Your task to perform on an android device: Open Youtube and go to the subscriptions tab Image 0: 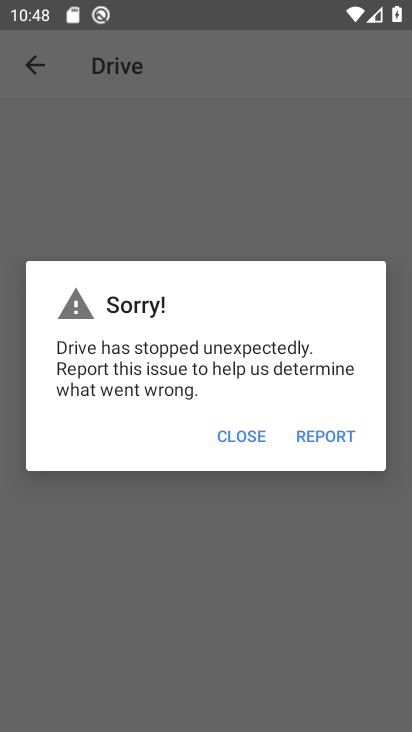
Step 0: press home button
Your task to perform on an android device: Open Youtube and go to the subscriptions tab Image 1: 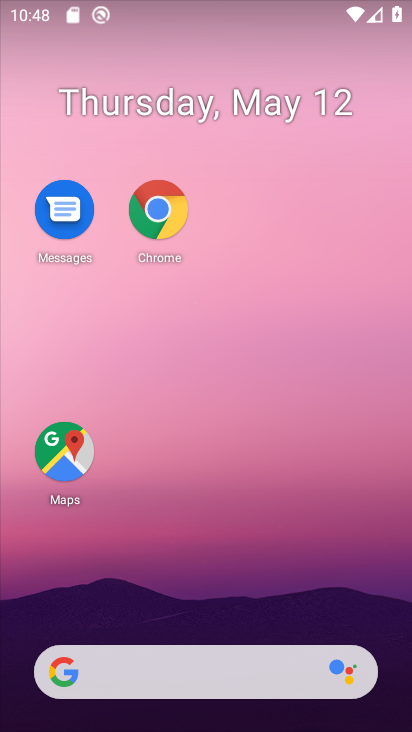
Step 1: drag from (239, 603) to (77, 17)
Your task to perform on an android device: Open Youtube and go to the subscriptions tab Image 2: 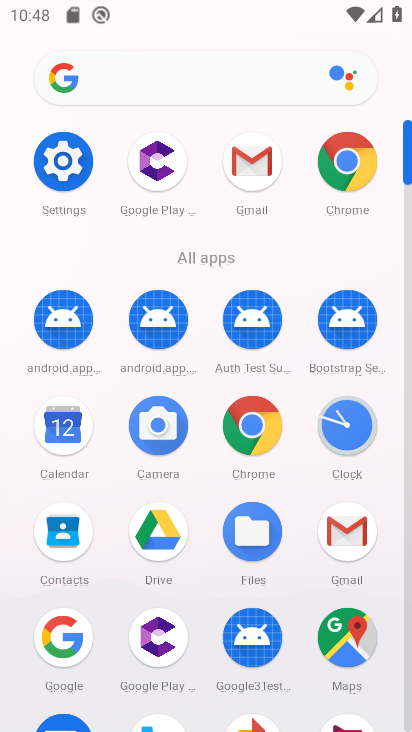
Step 2: drag from (185, 611) to (133, 187)
Your task to perform on an android device: Open Youtube and go to the subscriptions tab Image 3: 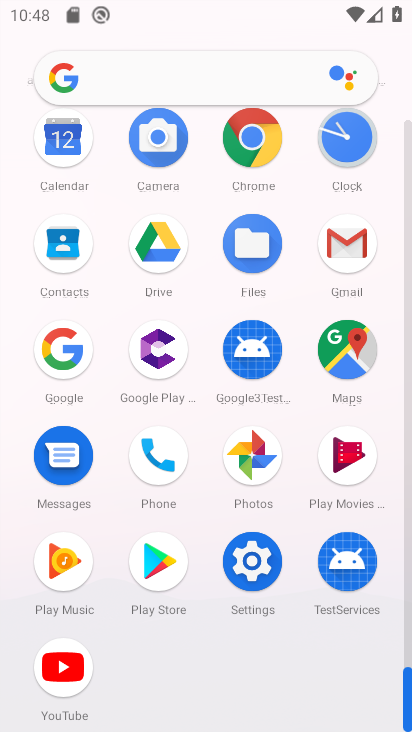
Step 3: click (76, 676)
Your task to perform on an android device: Open Youtube and go to the subscriptions tab Image 4: 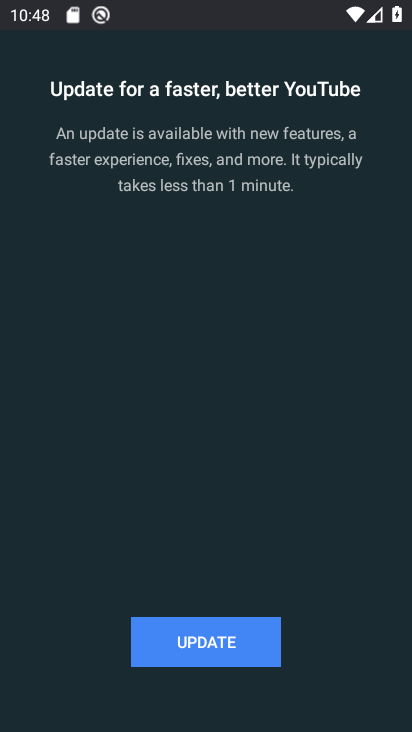
Step 4: click (187, 637)
Your task to perform on an android device: Open Youtube and go to the subscriptions tab Image 5: 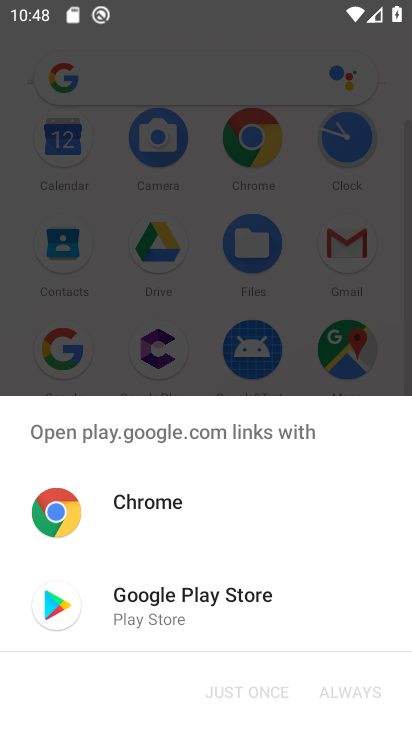
Step 5: click (249, 633)
Your task to perform on an android device: Open Youtube and go to the subscriptions tab Image 6: 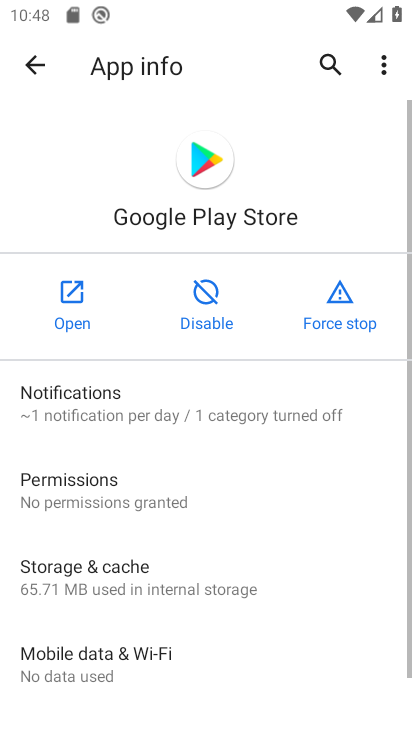
Step 6: click (195, 617)
Your task to perform on an android device: Open Youtube and go to the subscriptions tab Image 7: 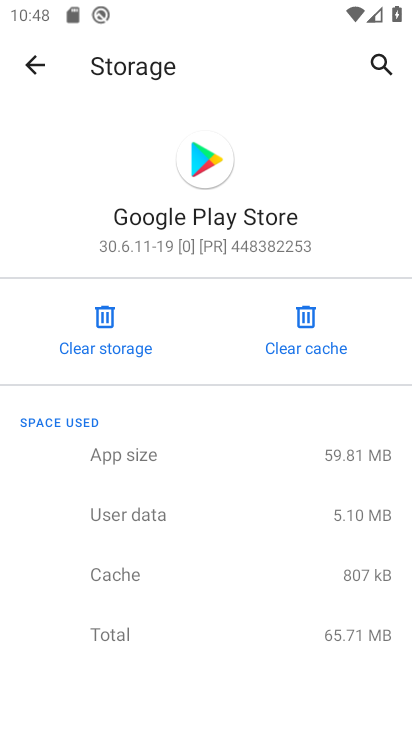
Step 7: click (41, 75)
Your task to perform on an android device: Open Youtube and go to the subscriptions tab Image 8: 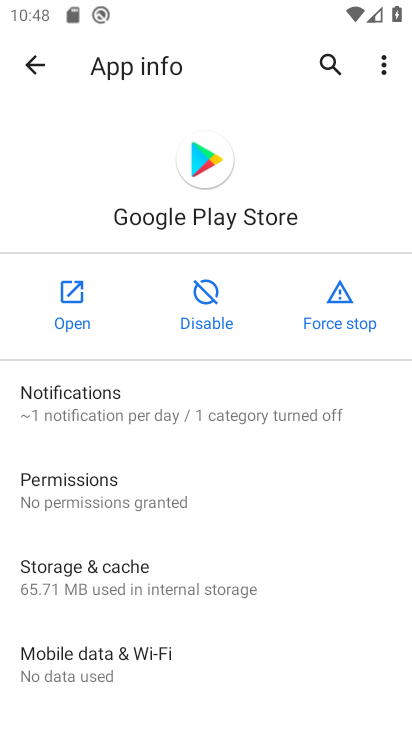
Step 8: click (35, 79)
Your task to perform on an android device: Open Youtube and go to the subscriptions tab Image 9: 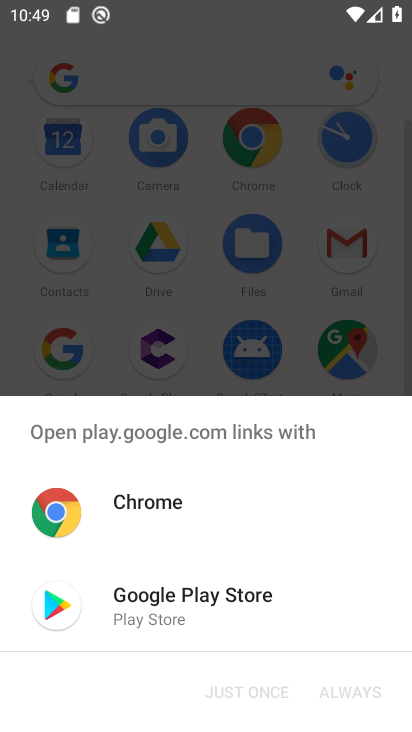
Step 9: click (181, 615)
Your task to perform on an android device: Open Youtube and go to the subscriptions tab Image 10: 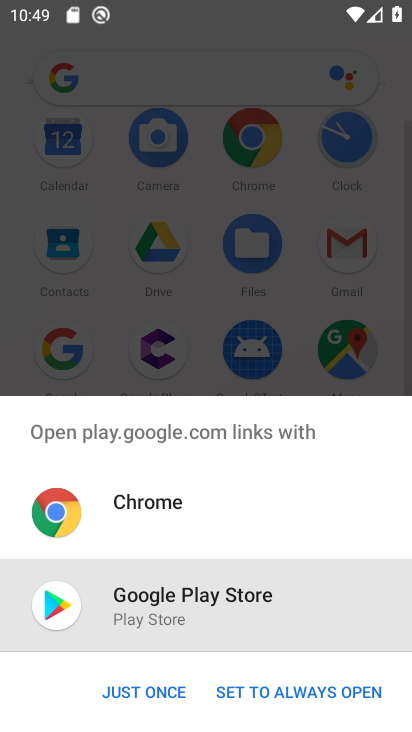
Step 10: click (259, 695)
Your task to perform on an android device: Open Youtube and go to the subscriptions tab Image 11: 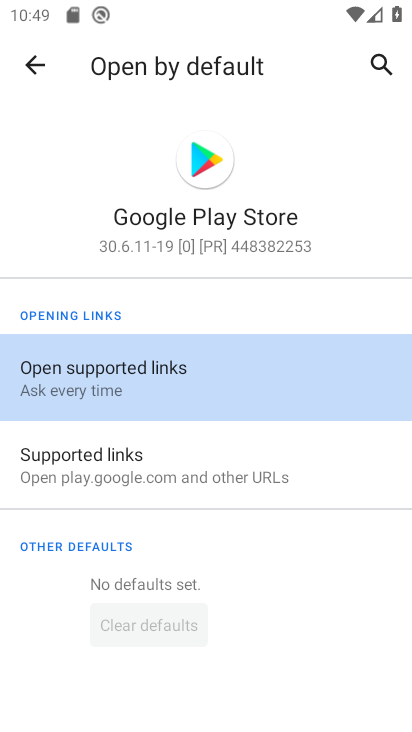
Step 11: click (85, 403)
Your task to perform on an android device: Open Youtube and go to the subscriptions tab Image 12: 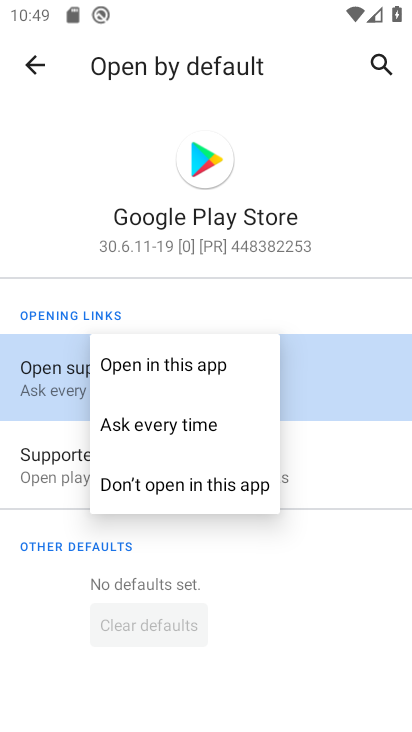
Step 12: click (154, 369)
Your task to perform on an android device: Open Youtube and go to the subscriptions tab Image 13: 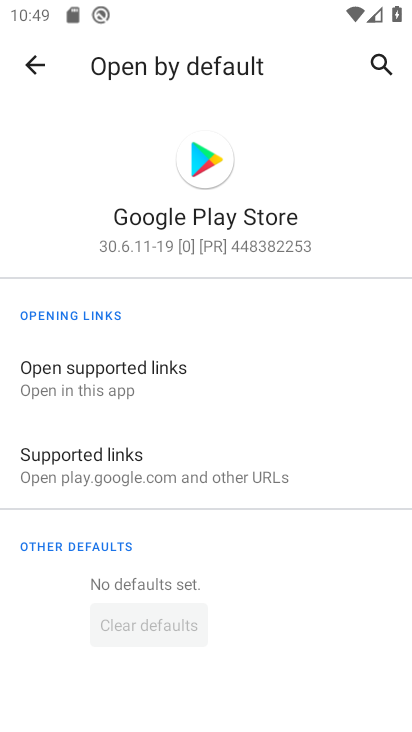
Step 13: click (32, 64)
Your task to perform on an android device: Open Youtube and go to the subscriptions tab Image 14: 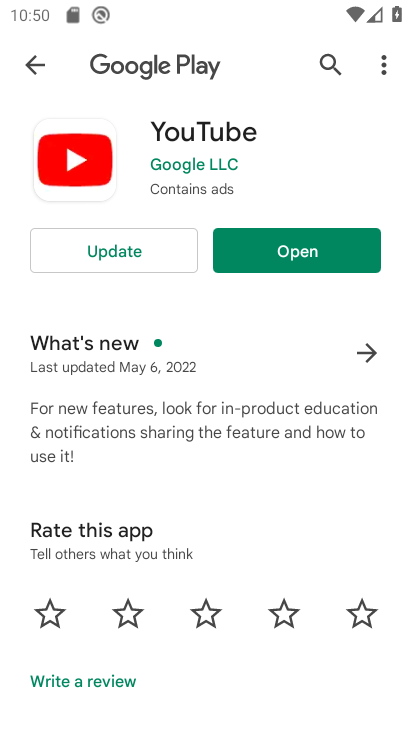
Step 14: click (121, 249)
Your task to perform on an android device: Open Youtube and go to the subscriptions tab Image 15: 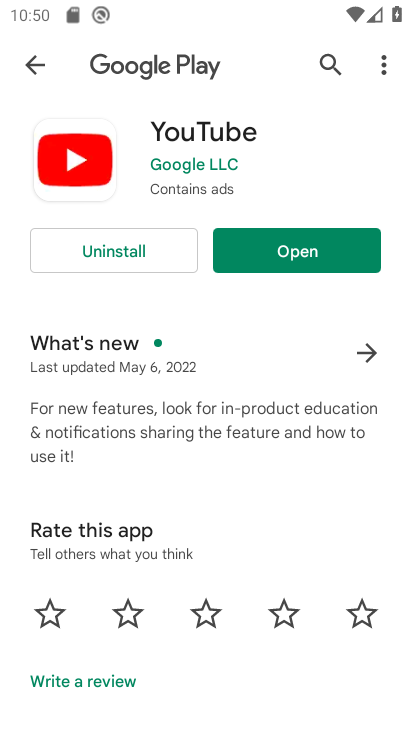
Step 15: click (248, 244)
Your task to perform on an android device: Open Youtube and go to the subscriptions tab Image 16: 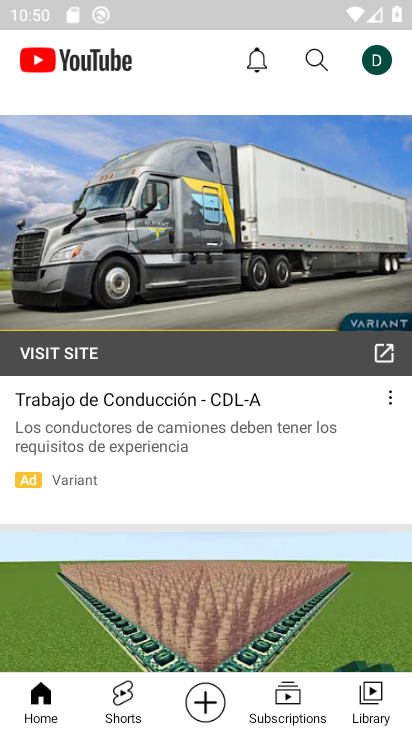
Step 16: click (306, 715)
Your task to perform on an android device: Open Youtube and go to the subscriptions tab Image 17: 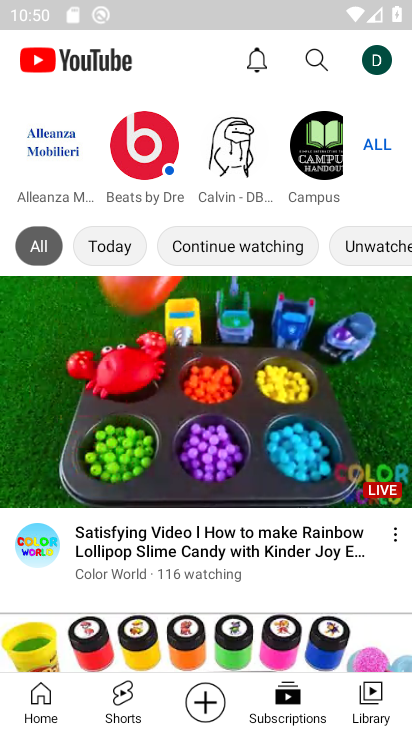
Step 17: task complete